Your task to perform on an android device: snooze an email in the gmail app Image 0: 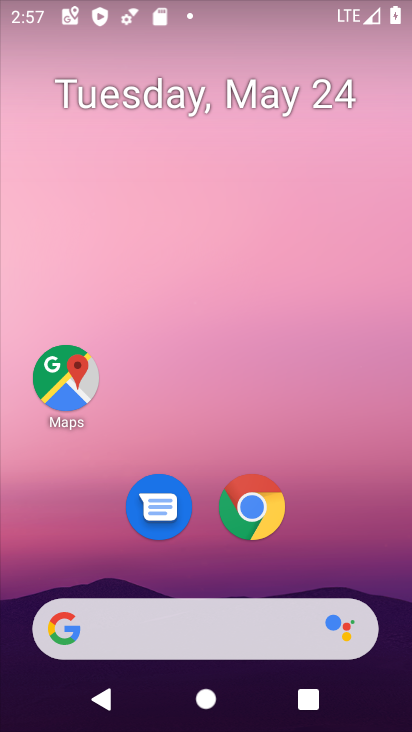
Step 0: drag from (167, 569) to (244, 124)
Your task to perform on an android device: snooze an email in the gmail app Image 1: 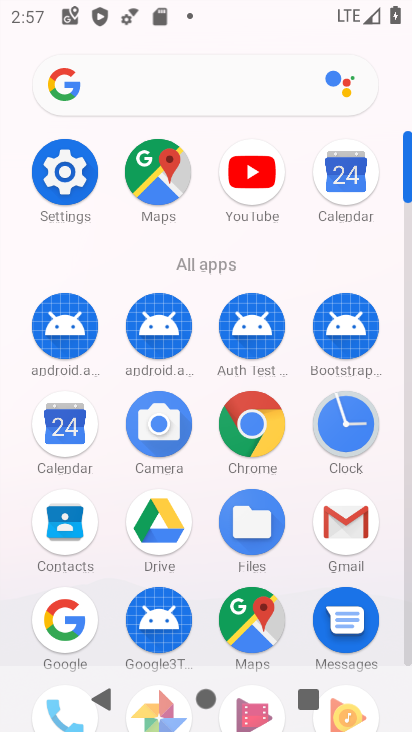
Step 1: click (348, 533)
Your task to perform on an android device: snooze an email in the gmail app Image 2: 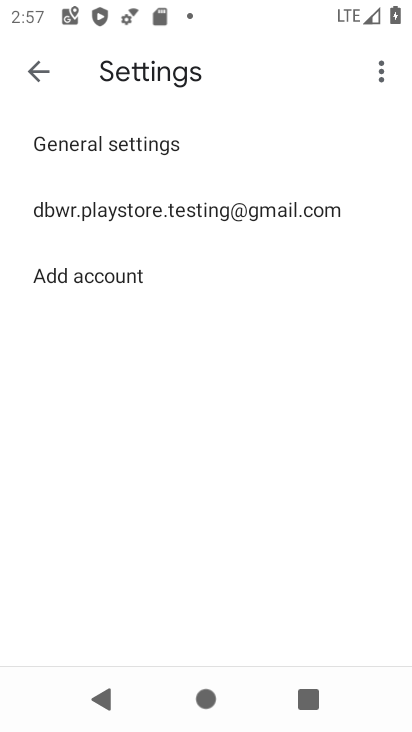
Step 2: click (42, 57)
Your task to perform on an android device: snooze an email in the gmail app Image 3: 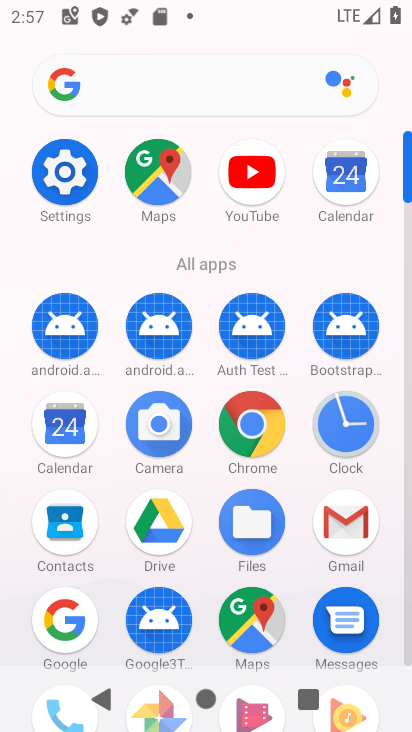
Step 3: click (351, 521)
Your task to perform on an android device: snooze an email in the gmail app Image 4: 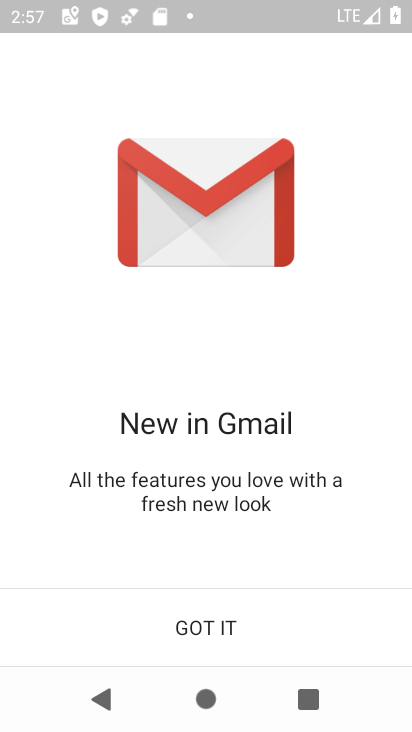
Step 4: click (168, 618)
Your task to perform on an android device: snooze an email in the gmail app Image 5: 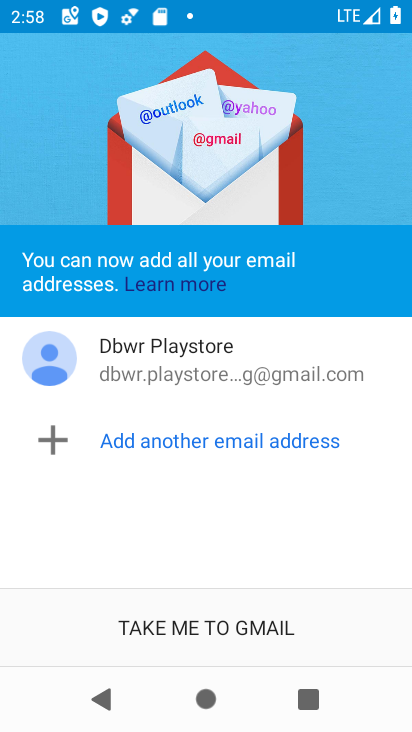
Step 5: click (168, 618)
Your task to perform on an android device: snooze an email in the gmail app Image 6: 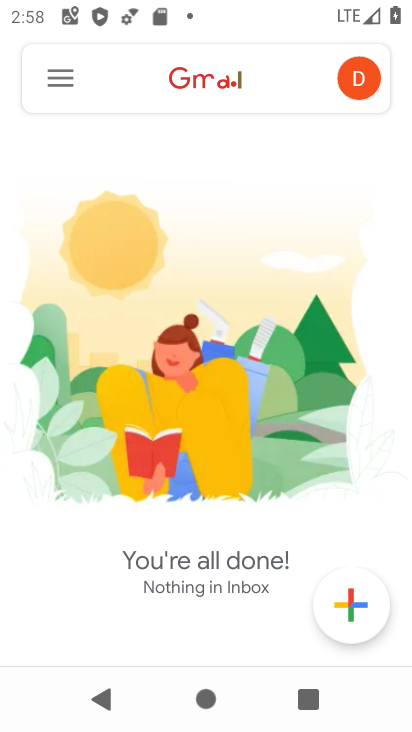
Step 6: click (62, 79)
Your task to perform on an android device: snooze an email in the gmail app Image 7: 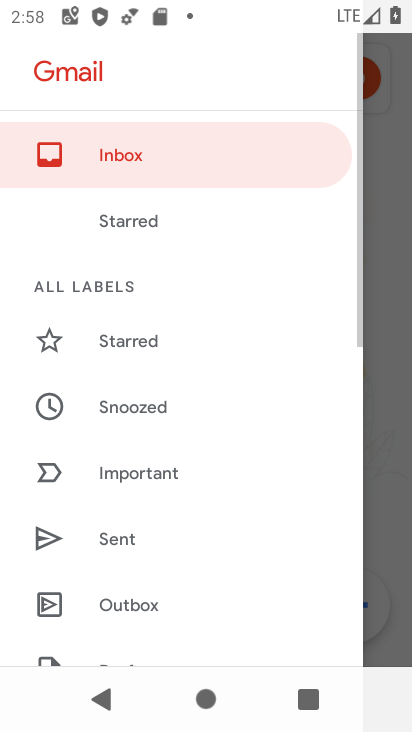
Step 7: drag from (139, 585) to (247, 154)
Your task to perform on an android device: snooze an email in the gmail app Image 8: 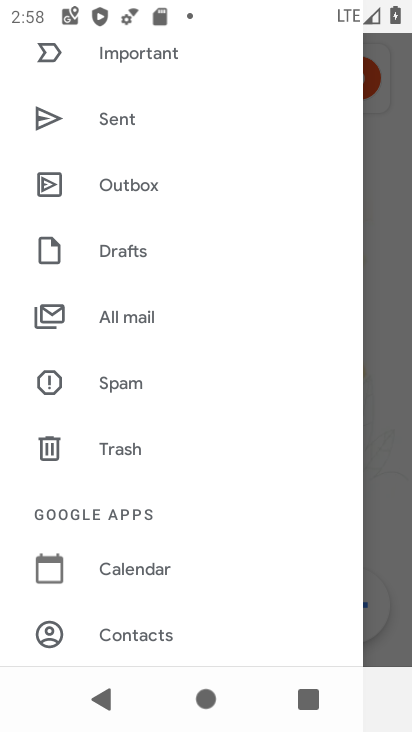
Step 8: click (133, 311)
Your task to perform on an android device: snooze an email in the gmail app Image 9: 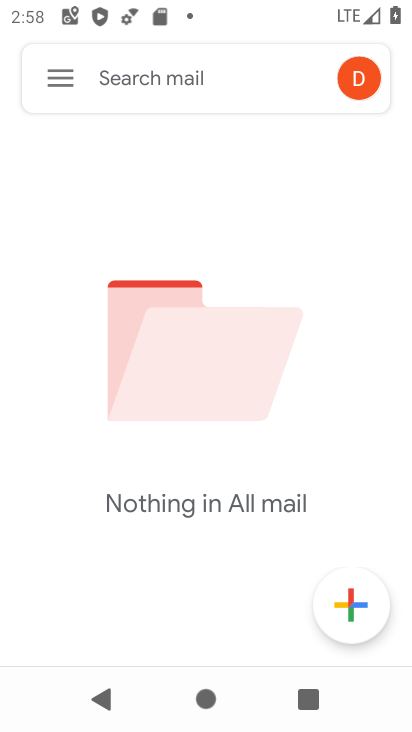
Step 9: task complete